Your task to perform on an android device: turn on bluetooth scan Image 0: 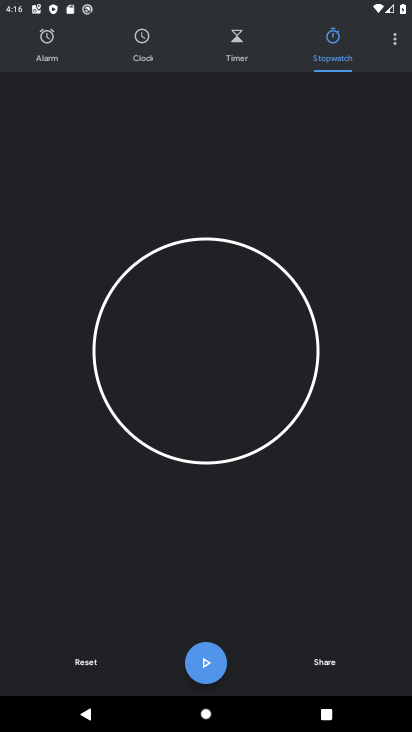
Step 0: press back button
Your task to perform on an android device: turn on bluetooth scan Image 1: 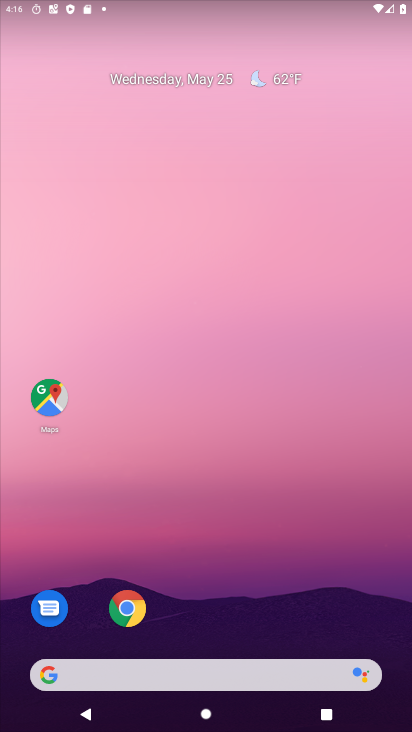
Step 1: drag from (287, 602) to (225, 121)
Your task to perform on an android device: turn on bluetooth scan Image 2: 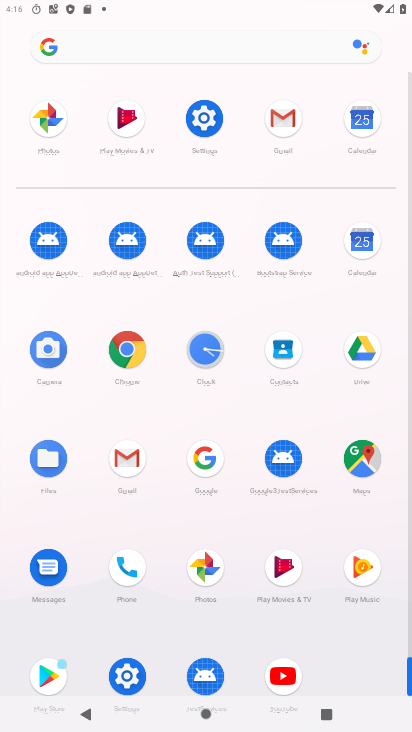
Step 2: click (205, 116)
Your task to perform on an android device: turn on bluetooth scan Image 3: 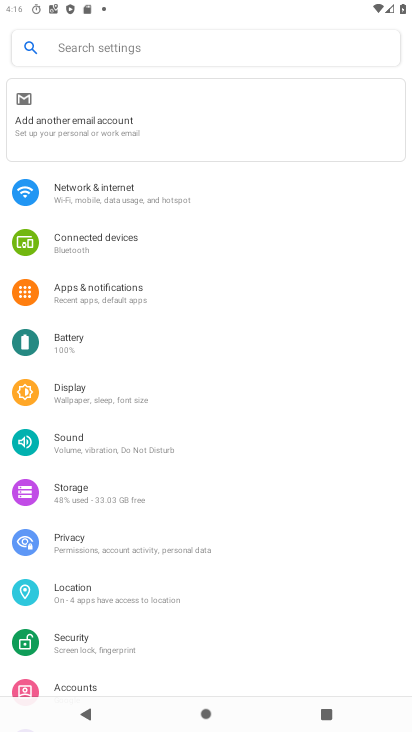
Step 3: click (95, 593)
Your task to perform on an android device: turn on bluetooth scan Image 4: 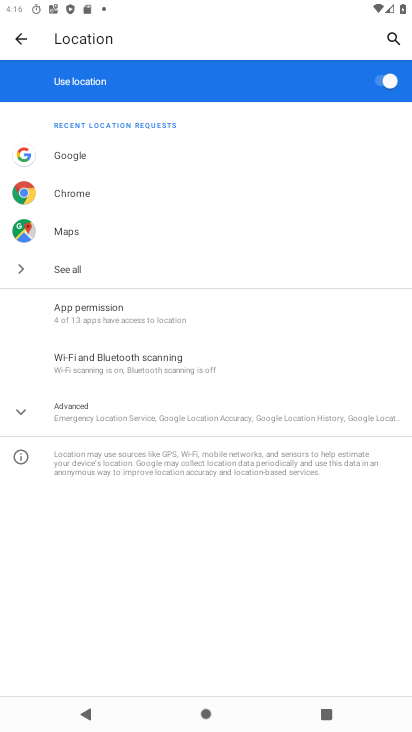
Step 4: click (84, 359)
Your task to perform on an android device: turn on bluetooth scan Image 5: 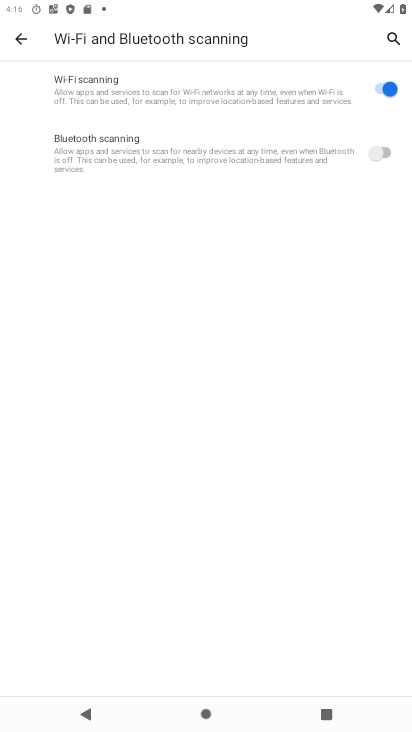
Step 5: click (380, 148)
Your task to perform on an android device: turn on bluetooth scan Image 6: 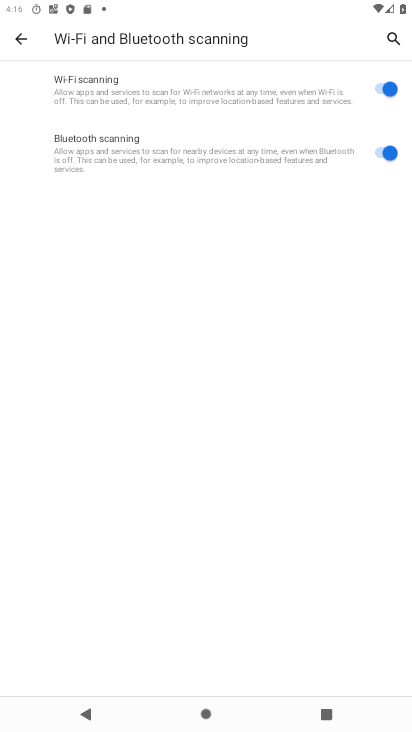
Step 6: task complete